Your task to perform on an android device: turn on the 24-hour format for clock Image 0: 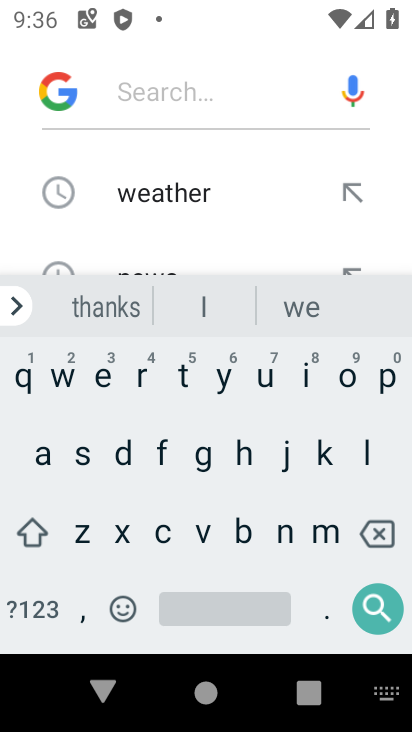
Step 0: press home button
Your task to perform on an android device: turn on the 24-hour format for clock Image 1: 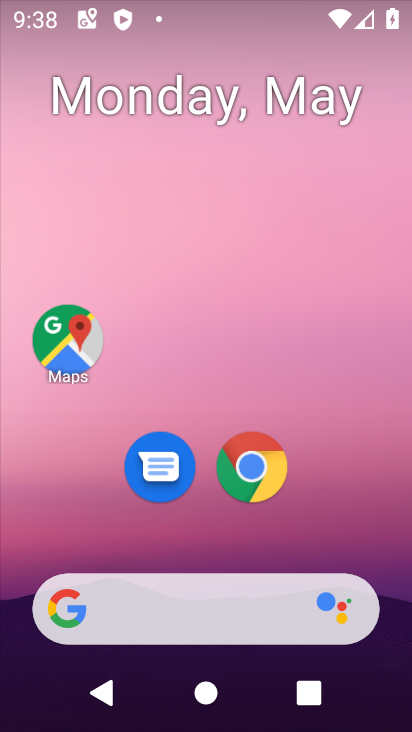
Step 1: drag from (267, 644) to (216, 8)
Your task to perform on an android device: turn on the 24-hour format for clock Image 2: 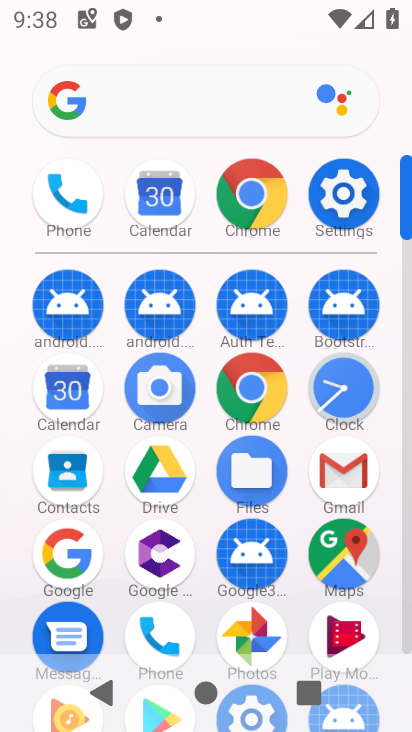
Step 2: click (347, 400)
Your task to perform on an android device: turn on the 24-hour format for clock Image 3: 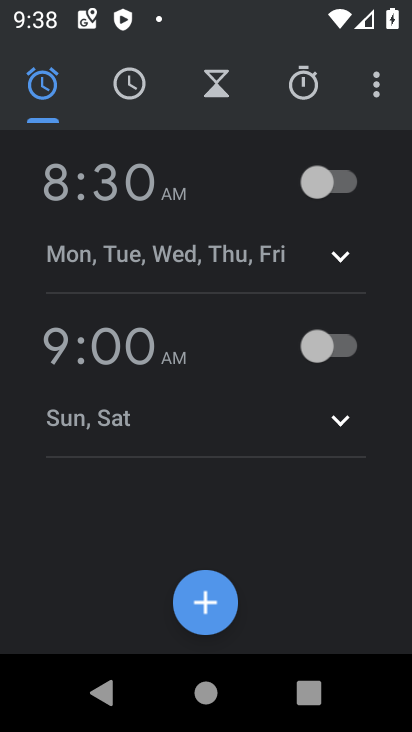
Step 3: click (373, 96)
Your task to perform on an android device: turn on the 24-hour format for clock Image 4: 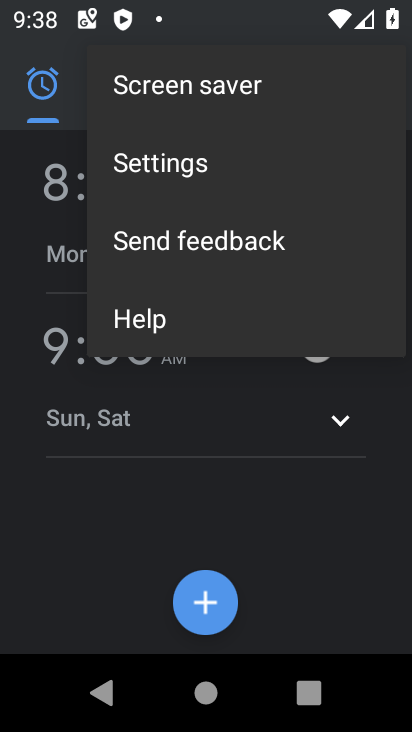
Step 4: click (208, 167)
Your task to perform on an android device: turn on the 24-hour format for clock Image 5: 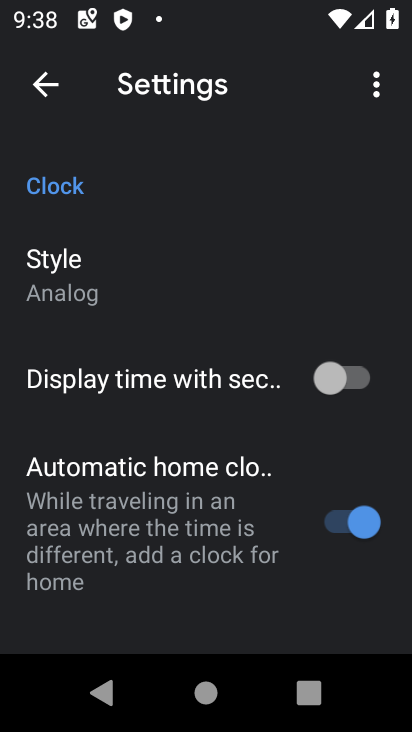
Step 5: drag from (163, 512) to (165, 121)
Your task to perform on an android device: turn on the 24-hour format for clock Image 6: 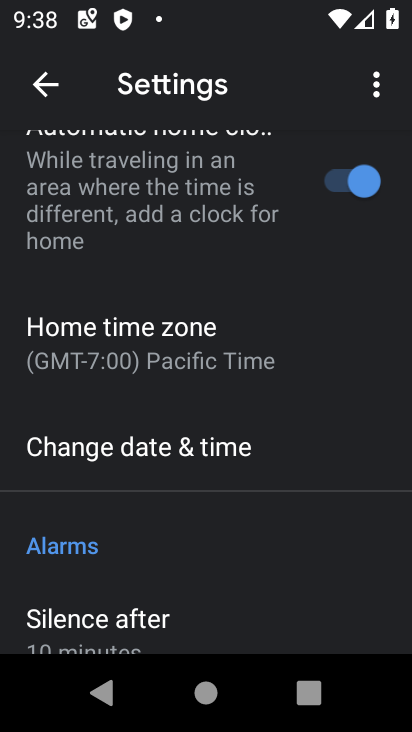
Step 6: click (160, 452)
Your task to perform on an android device: turn on the 24-hour format for clock Image 7: 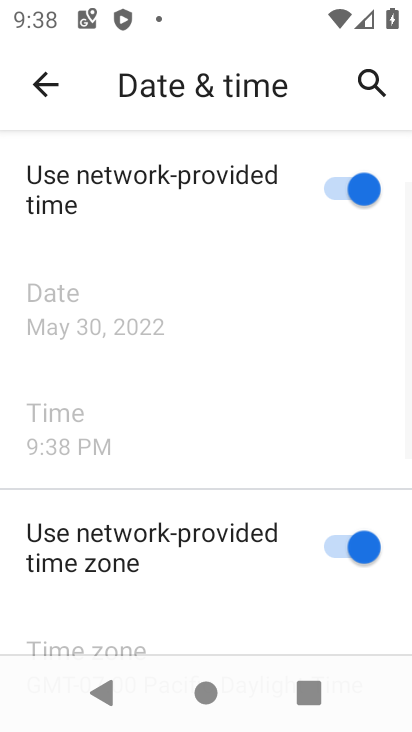
Step 7: drag from (213, 483) to (249, 170)
Your task to perform on an android device: turn on the 24-hour format for clock Image 8: 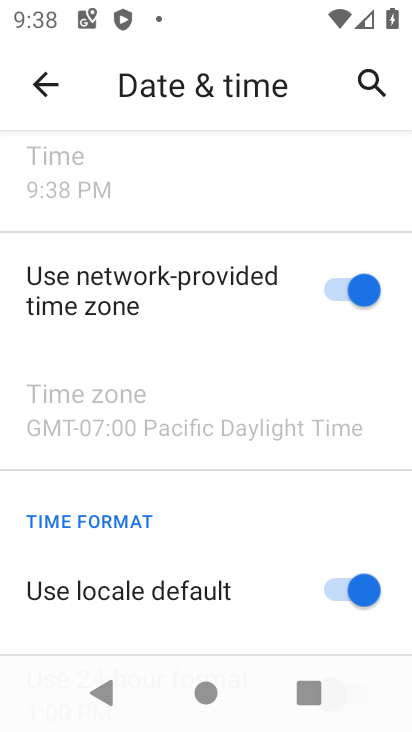
Step 8: drag from (275, 504) to (284, 298)
Your task to perform on an android device: turn on the 24-hour format for clock Image 9: 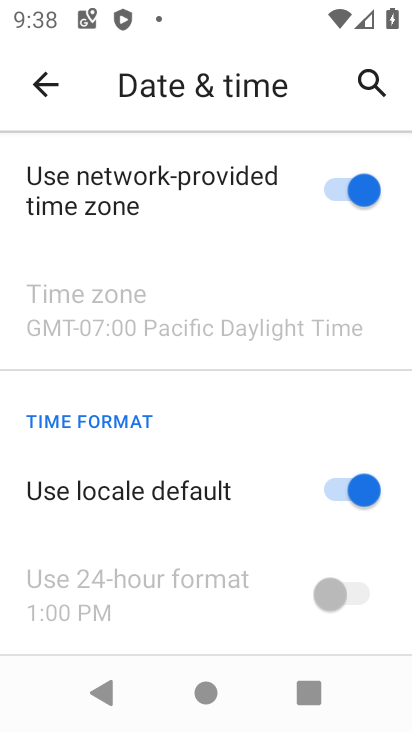
Step 9: click (345, 490)
Your task to perform on an android device: turn on the 24-hour format for clock Image 10: 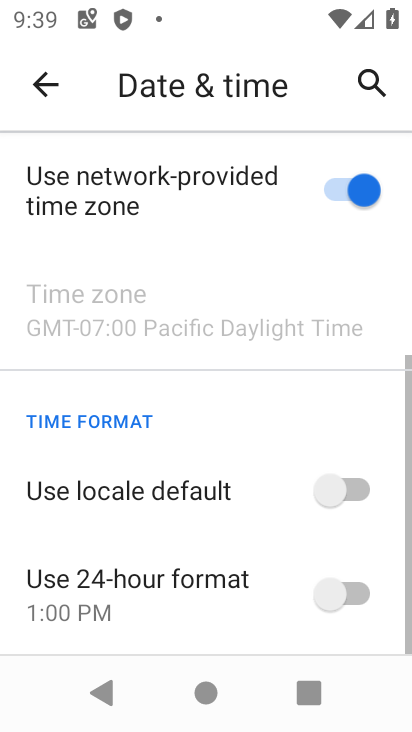
Step 10: click (347, 583)
Your task to perform on an android device: turn on the 24-hour format for clock Image 11: 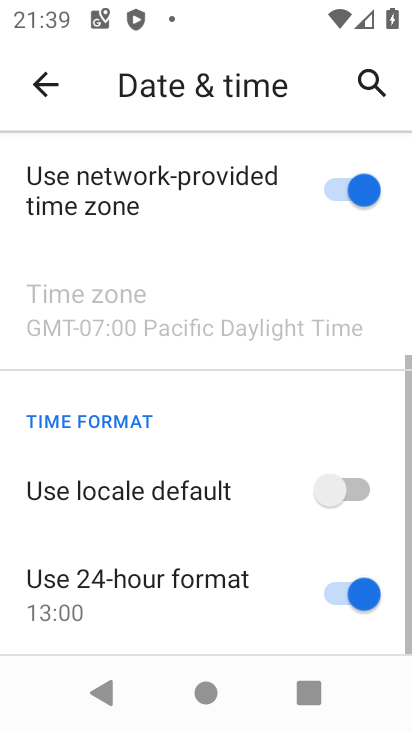
Step 11: task complete